Your task to perform on an android device: What's the news in China? Image 0: 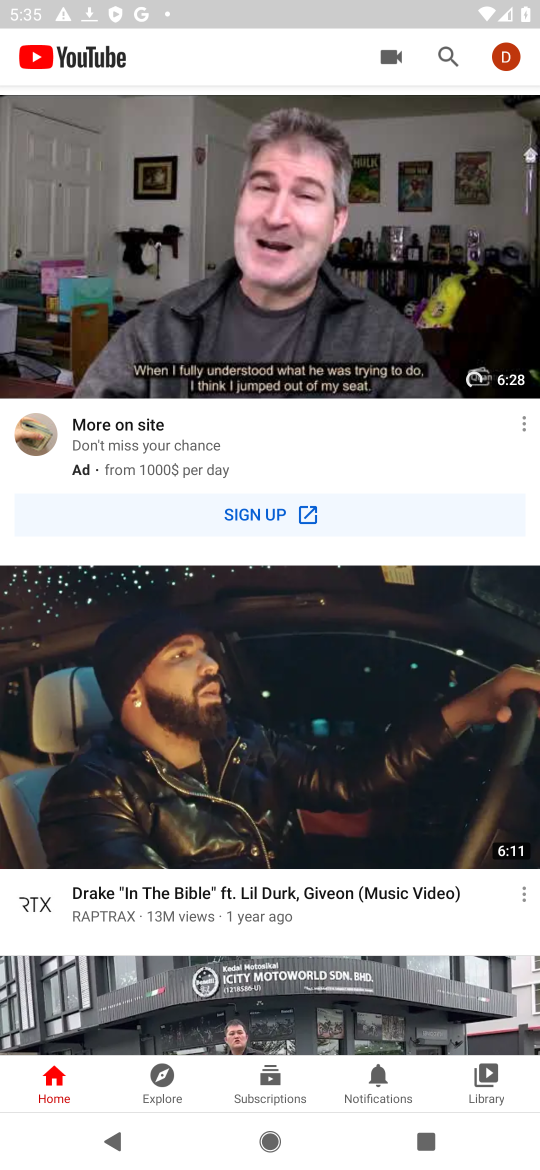
Step 0: press home button
Your task to perform on an android device: What's the news in China? Image 1: 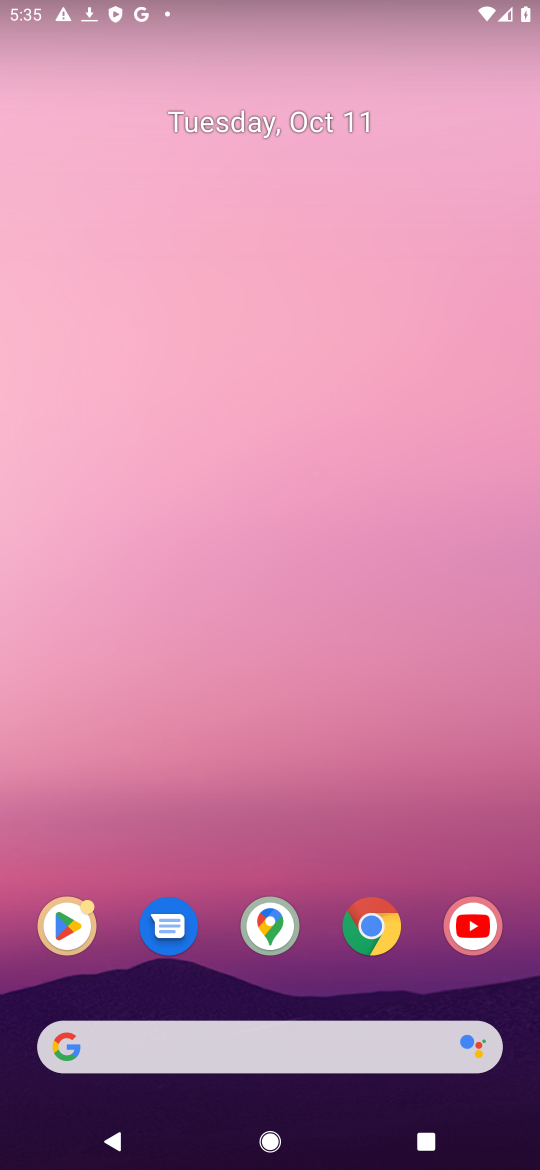
Step 1: click (228, 1056)
Your task to perform on an android device: What's the news in China? Image 2: 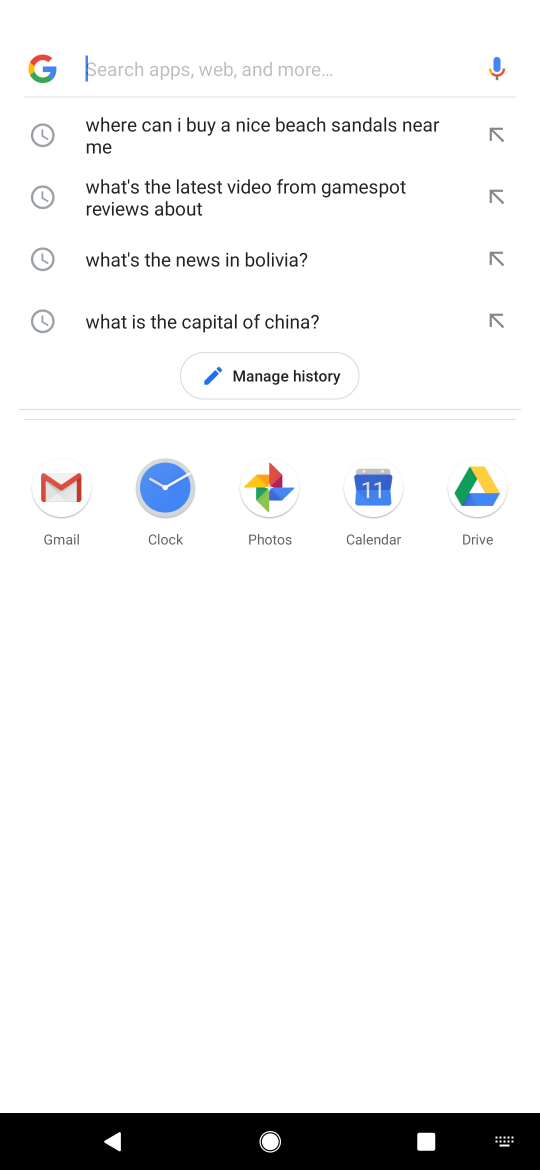
Step 2: type "What's the news in China"
Your task to perform on an android device: What's the news in China? Image 3: 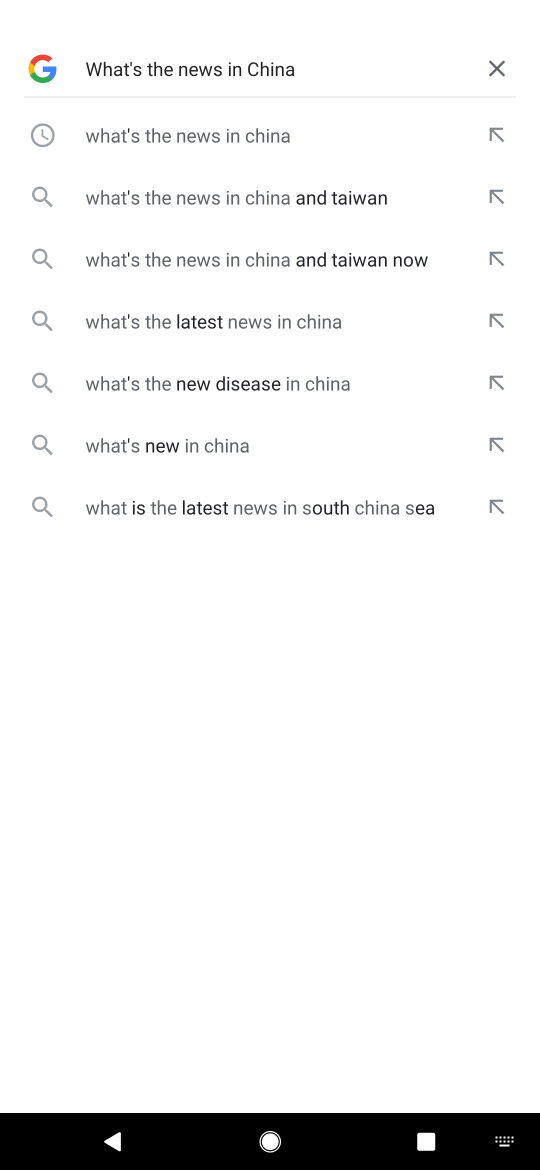
Step 3: click (277, 143)
Your task to perform on an android device: What's the news in China? Image 4: 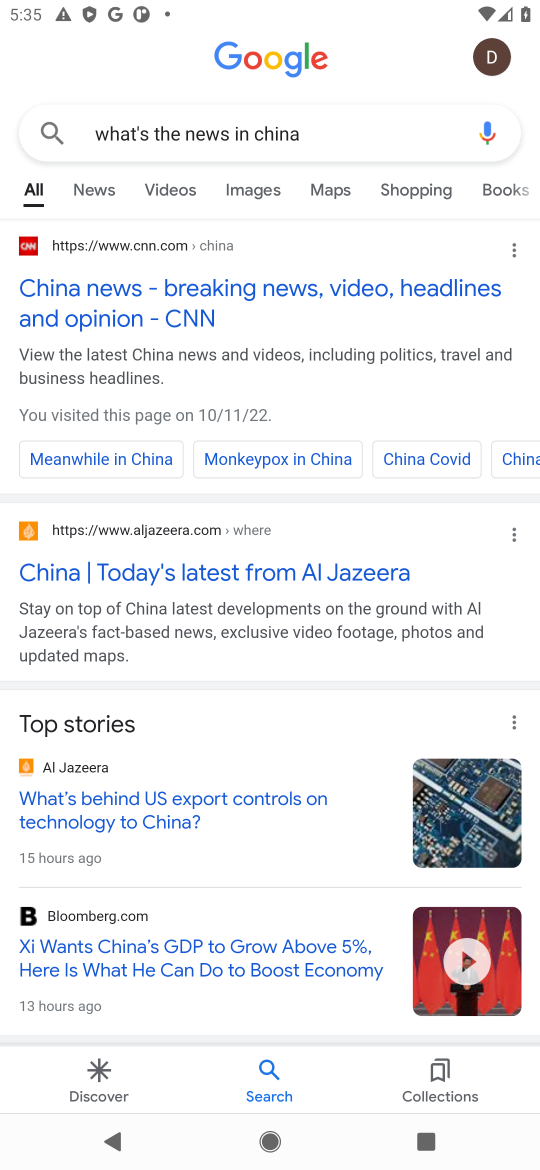
Step 4: click (180, 307)
Your task to perform on an android device: What's the news in China? Image 5: 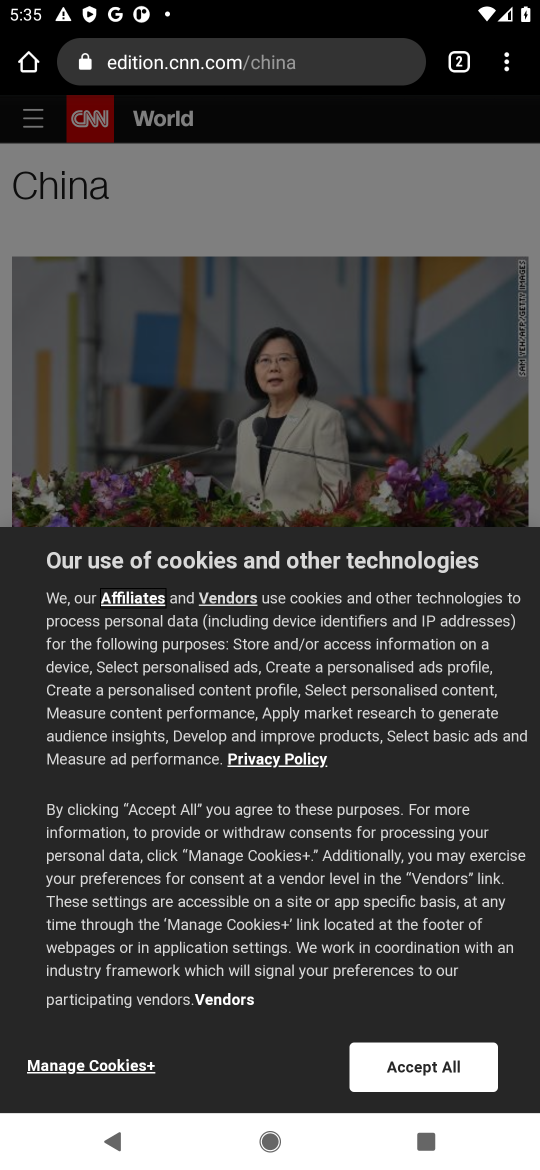
Step 5: click (398, 1067)
Your task to perform on an android device: What's the news in China? Image 6: 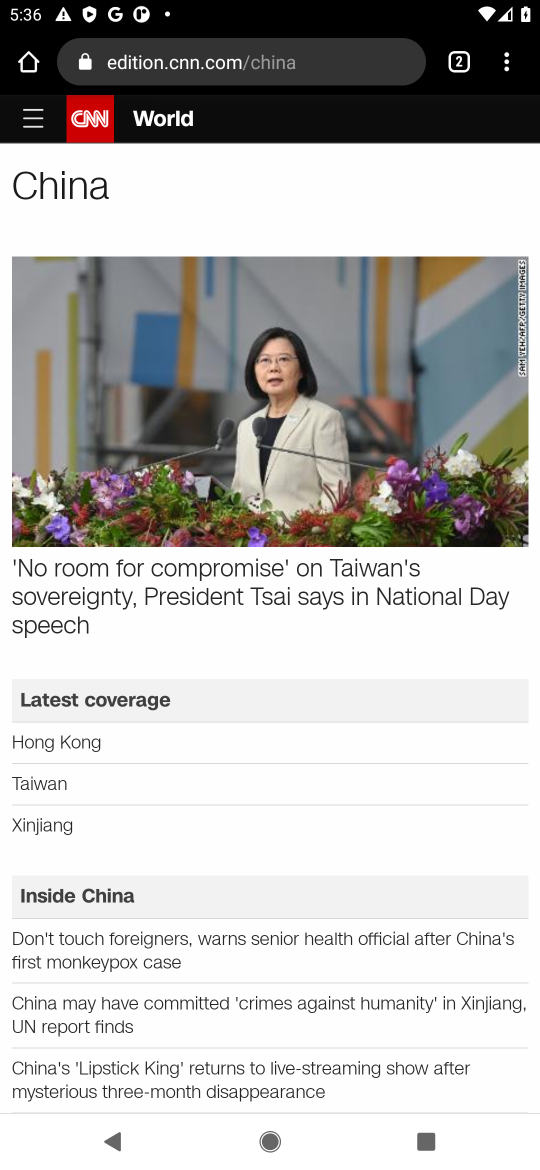
Step 6: drag from (318, 860) to (324, 648)
Your task to perform on an android device: What's the news in China? Image 7: 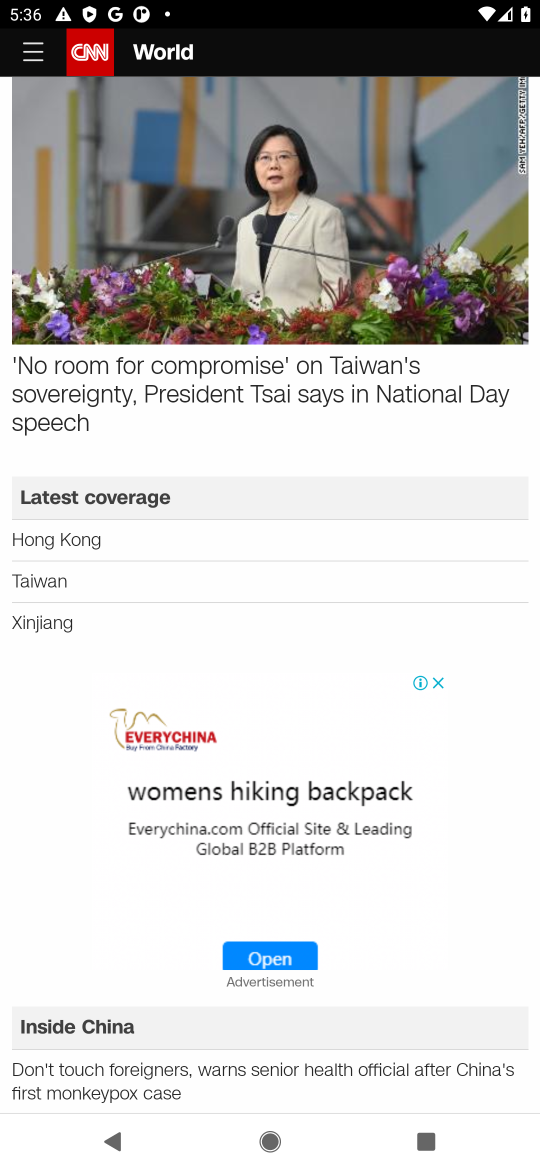
Step 7: click (260, 281)
Your task to perform on an android device: What's the news in China? Image 8: 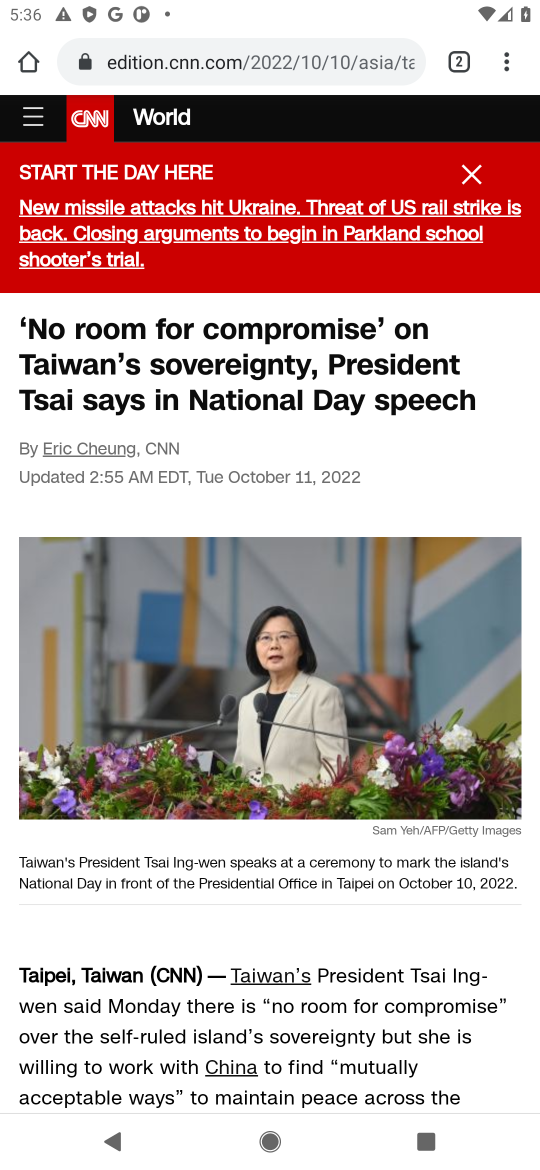
Step 8: task complete